Your task to perform on an android device: open a bookmark in the chrome app Image 0: 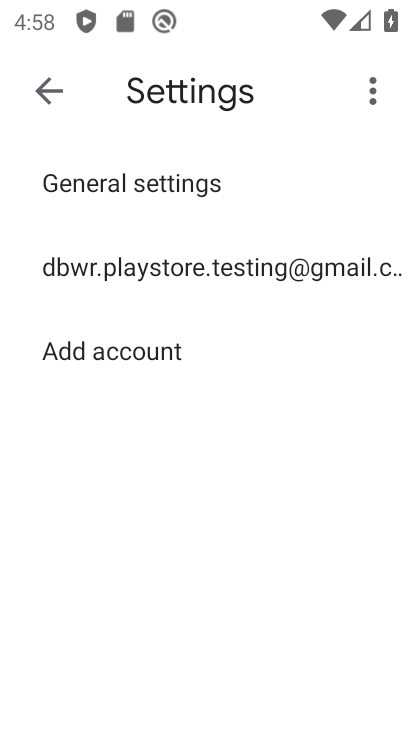
Step 0: press home button
Your task to perform on an android device: open a bookmark in the chrome app Image 1: 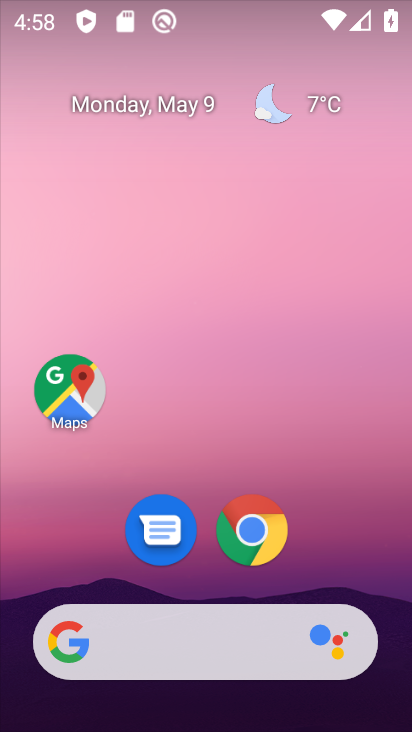
Step 1: click (260, 528)
Your task to perform on an android device: open a bookmark in the chrome app Image 2: 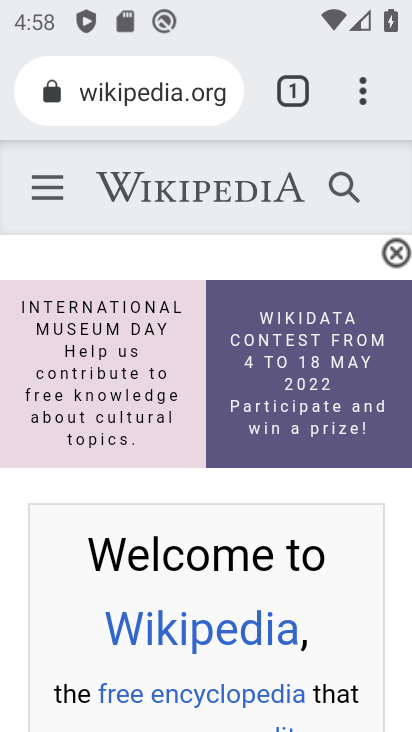
Step 2: click (367, 77)
Your task to perform on an android device: open a bookmark in the chrome app Image 3: 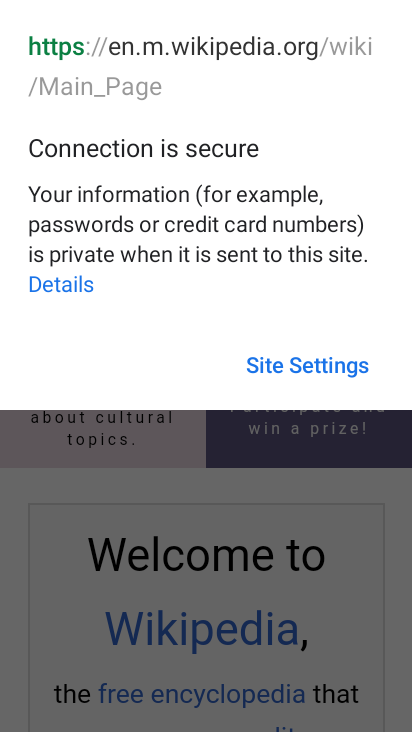
Step 3: click (79, 434)
Your task to perform on an android device: open a bookmark in the chrome app Image 4: 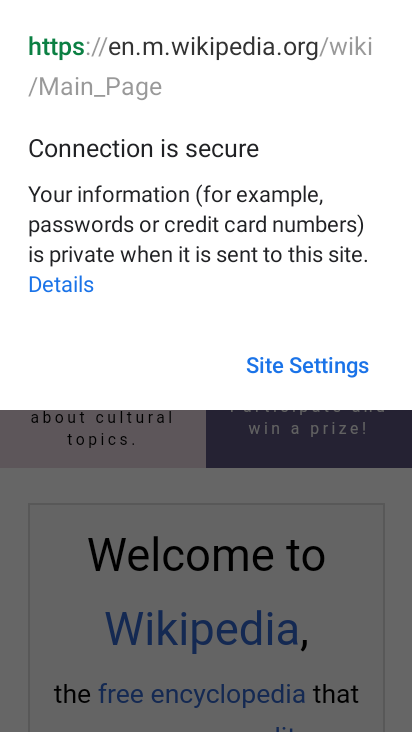
Step 4: click (317, 369)
Your task to perform on an android device: open a bookmark in the chrome app Image 5: 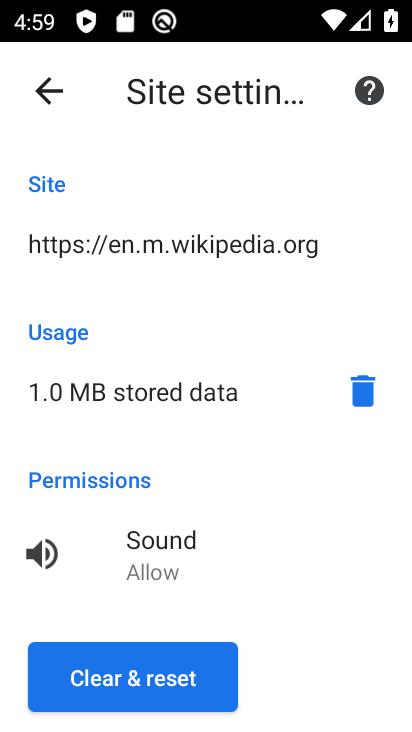
Step 5: click (132, 668)
Your task to perform on an android device: open a bookmark in the chrome app Image 6: 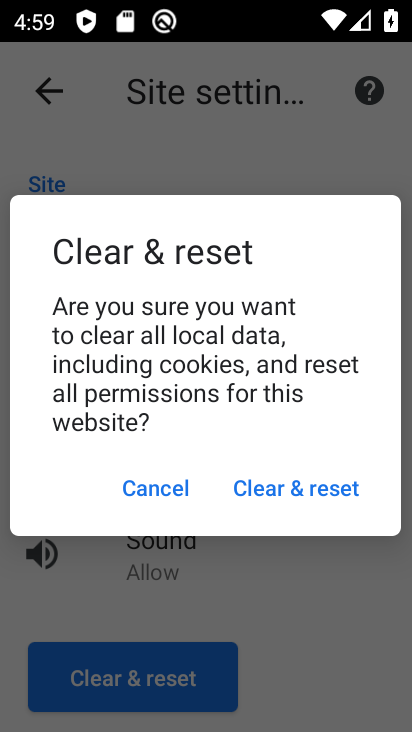
Step 6: click (325, 479)
Your task to perform on an android device: open a bookmark in the chrome app Image 7: 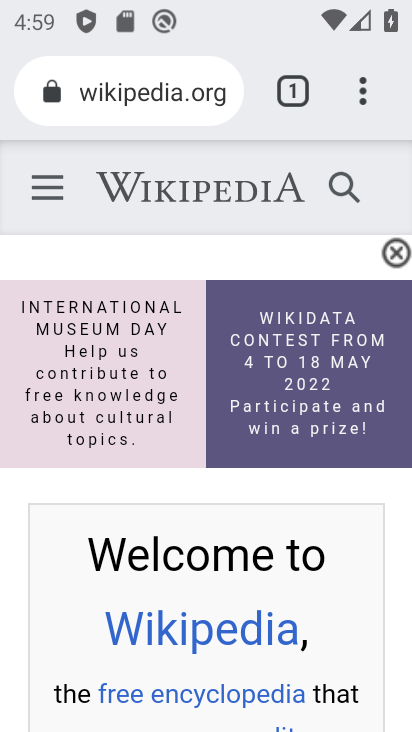
Step 7: click (375, 103)
Your task to perform on an android device: open a bookmark in the chrome app Image 8: 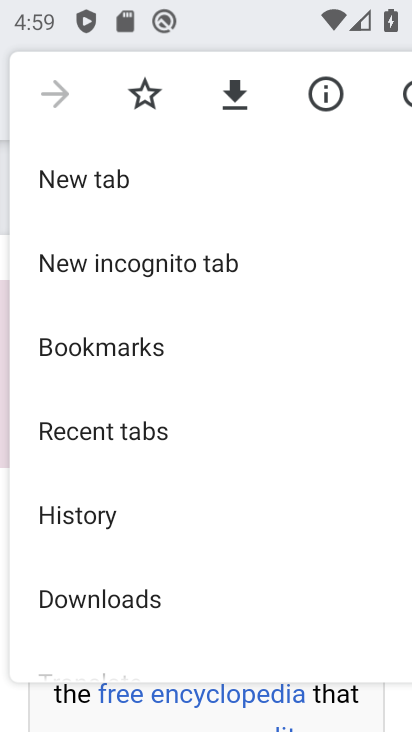
Step 8: click (98, 347)
Your task to perform on an android device: open a bookmark in the chrome app Image 9: 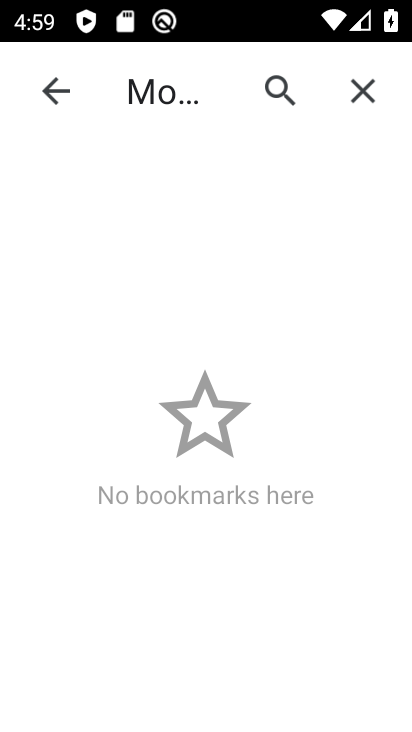
Step 9: task complete